Your task to perform on an android device: Do I have any events this weekend? Image 0: 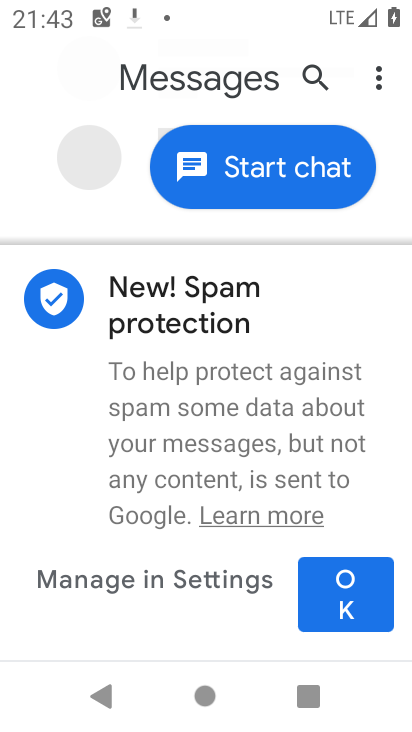
Step 0: press back button
Your task to perform on an android device: Do I have any events this weekend? Image 1: 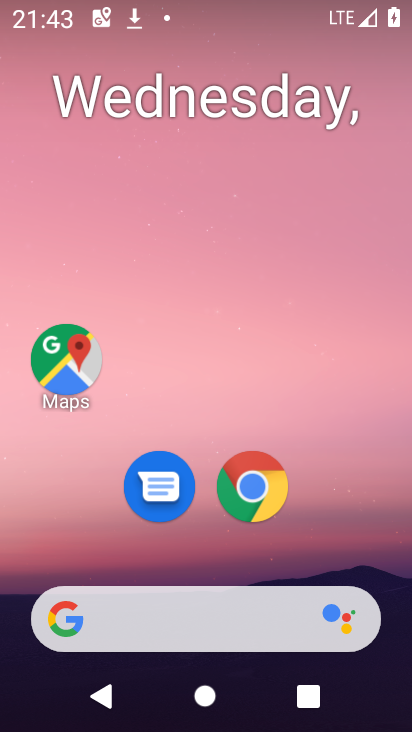
Step 1: drag from (114, 558) to (237, 5)
Your task to perform on an android device: Do I have any events this weekend? Image 2: 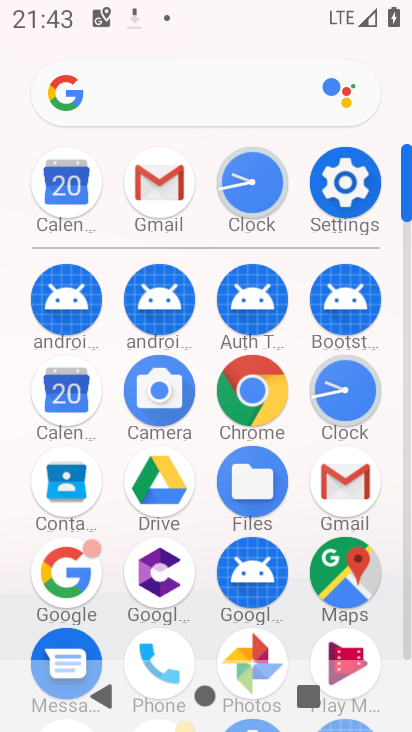
Step 2: click (86, 382)
Your task to perform on an android device: Do I have any events this weekend? Image 3: 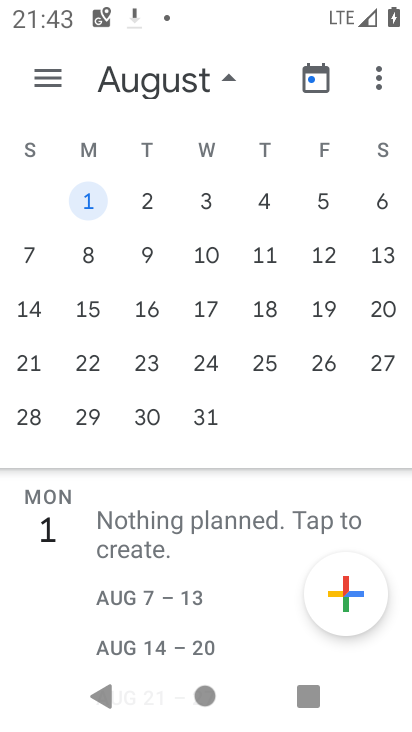
Step 3: drag from (77, 304) to (410, 352)
Your task to perform on an android device: Do I have any events this weekend? Image 4: 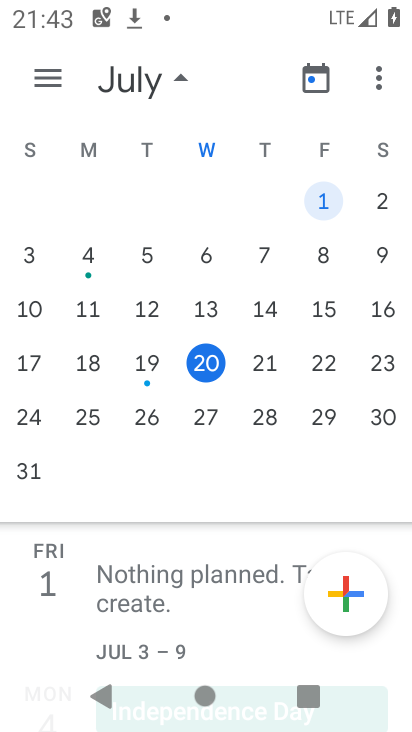
Step 4: click (381, 362)
Your task to perform on an android device: Do I have any events this weekend? Image 5: 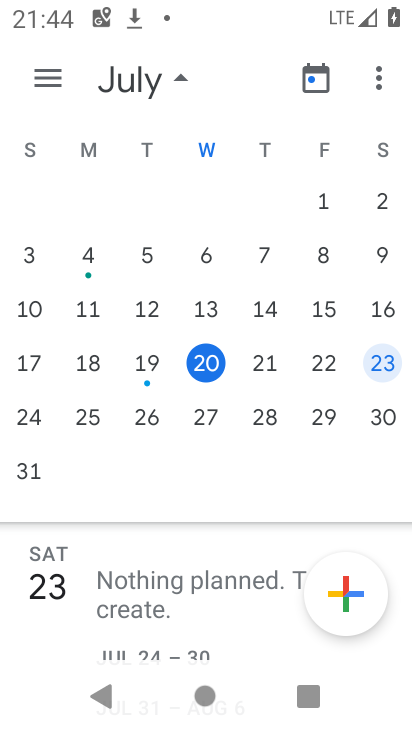
Step 5: task complete